Your task to perform on an android device: What is the recent news? Image 0: 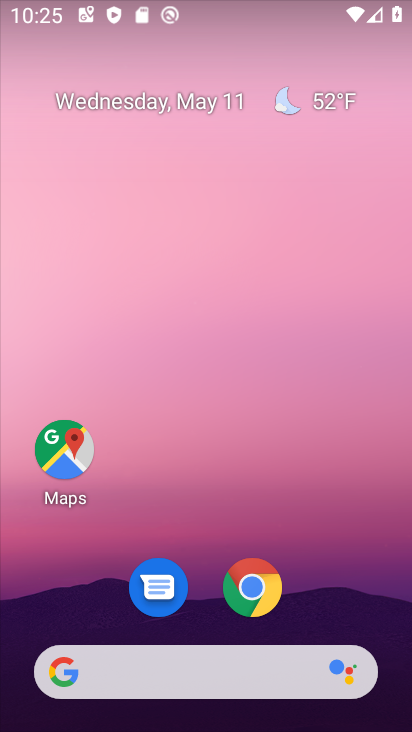
Step 0: drag from (287, 702) to (244, 305)
Your task to perform on an android device: What is the recent news? Image 1: 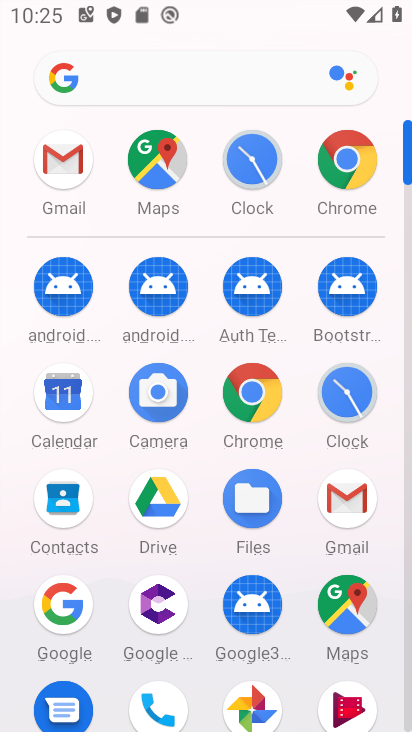
Step 1: click (158, 77)
Your task to perform on an android device: What is the recent news? Image 2: 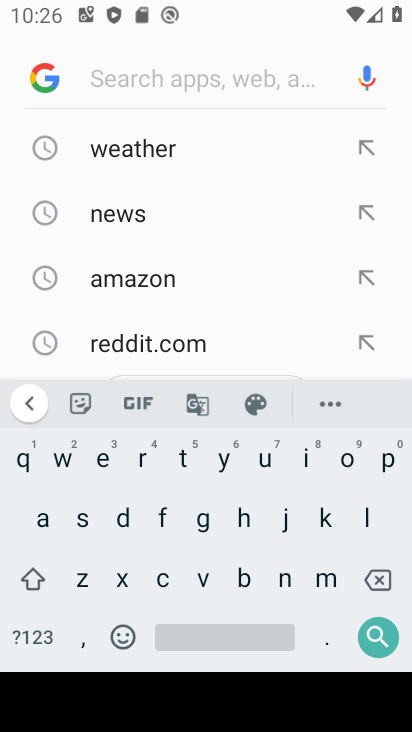
Step 2: click (141, 459)
Your task to perform on an android device: What is the recent news? Image 3: 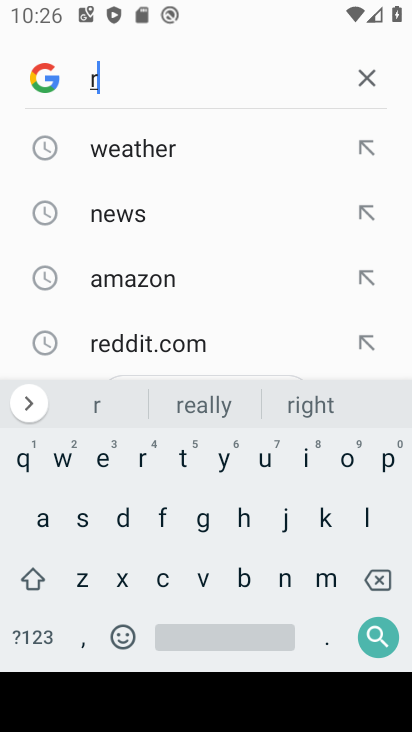
Step 3: click (103, 464)
Your task to perform on an android device: What is the recent news? Image 4: 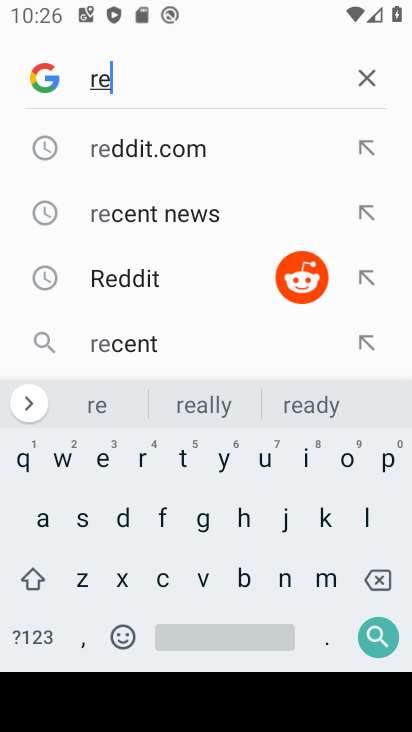
Step 4: click (170, 208)
Your task to perform on an android device: What is the recent news? Image 5: 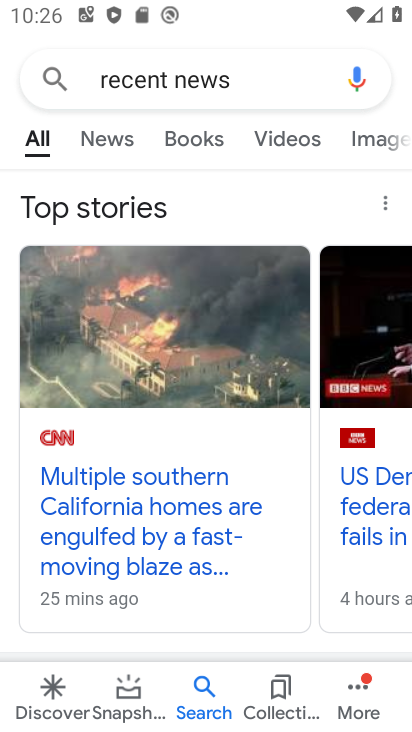
Step 5: task complete